Your task to perform on an android device: add a contact in the contacts app Image 0: 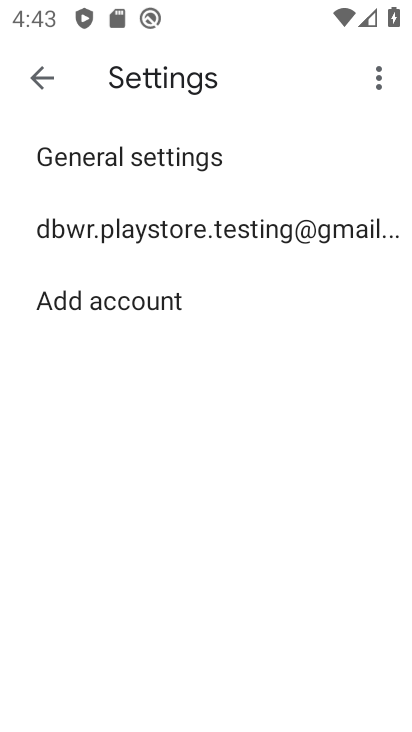
Step 0: press home button
Your task to perform on an android device: add a contact in the contacts app Image 1: 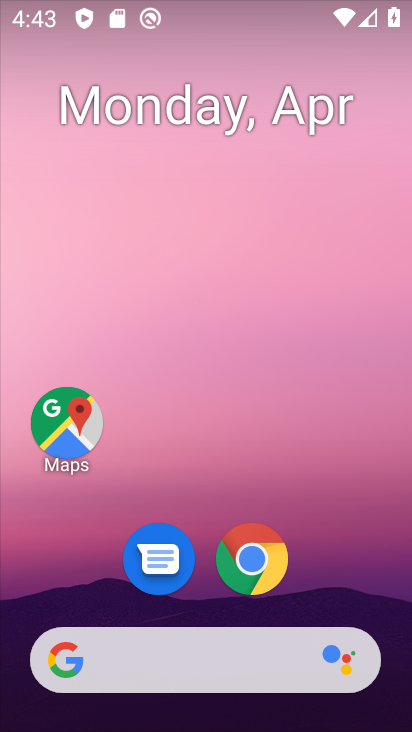
Step 1: drag from (357, 440) to (324, 76)
Your task to perform on an android device: add a contact in the contacts app Image 2: 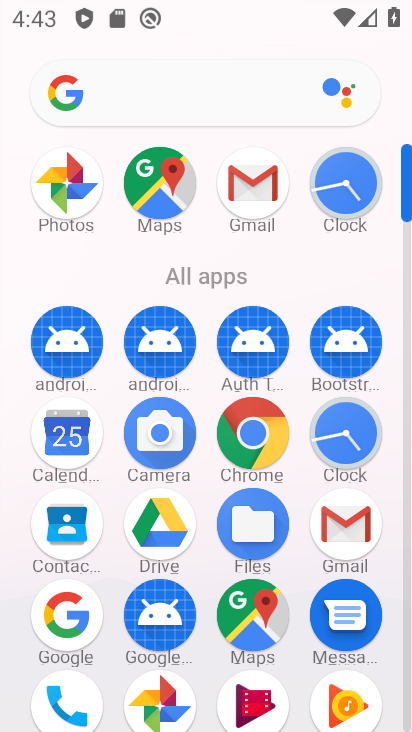
Step 2: click (80, 710)
Your task to perform on an android device: add a contact in the contacts app Image 3: 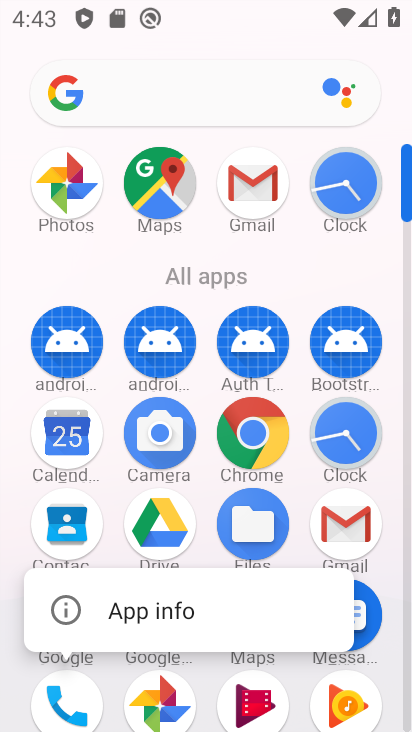
Step 3: click (73, 706)
Your task to perform on an android device: add a contact in the contacts app Image 4: 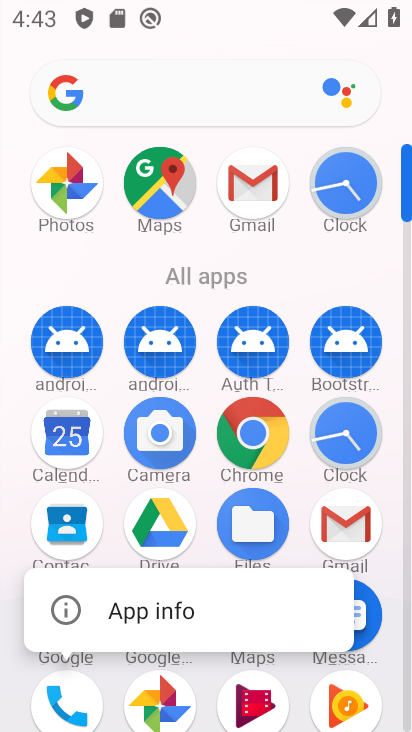
Step 4: click (73, 707)
Your task to perform on an android device: add a contact in the contacts app Image 5: 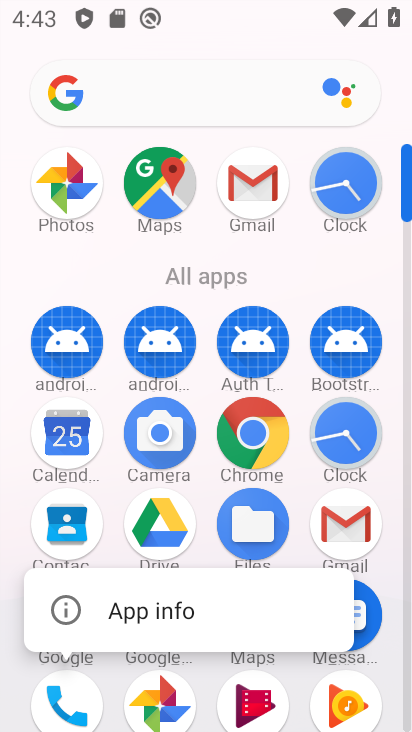
Step 5: click (70, 716)
Your task to perform on an android device: add a contact in the contacts app Image 6: 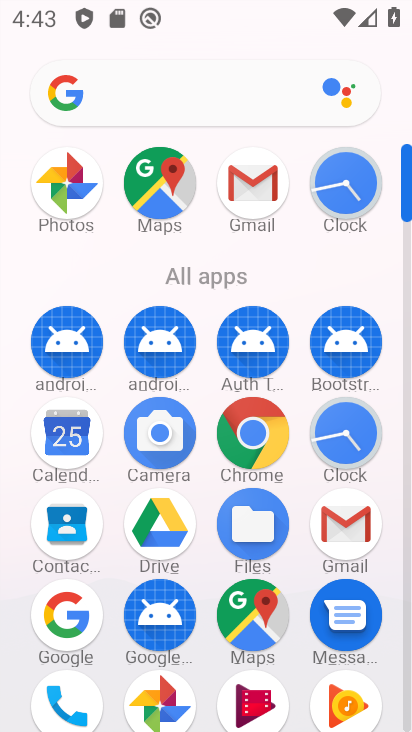
Step 6: click (67, 699)
Your task to perform on an android device: add a contact in the contacts app Image 7: 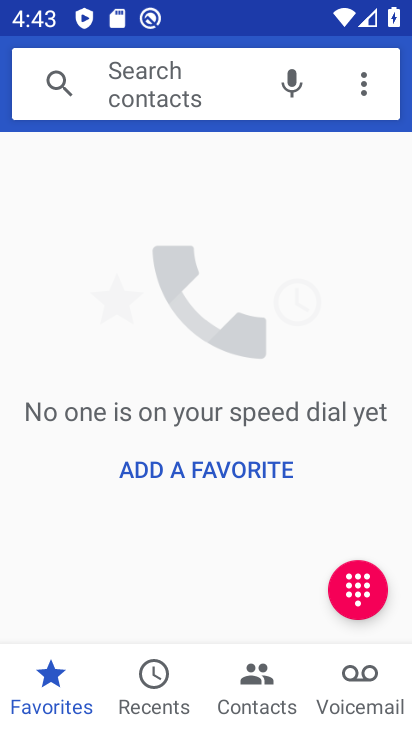
Step 7: click (241, 687)
Your task to perform on an android device: add a contact in the contacts app Image 8: 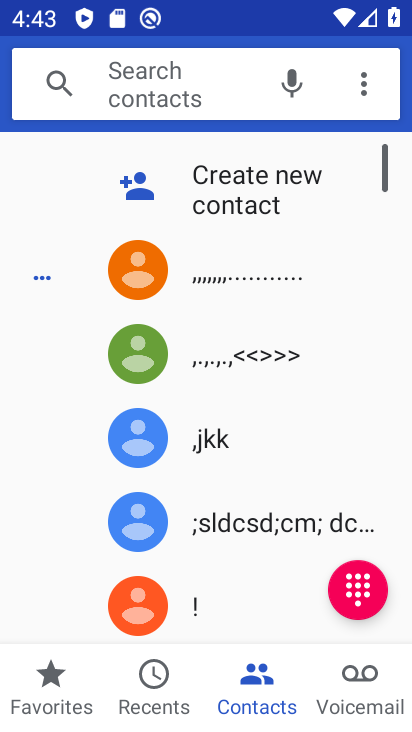
Step 8: click (260, 181)
Your task to perform on an android device: add a contact in the contacts app Image 9: 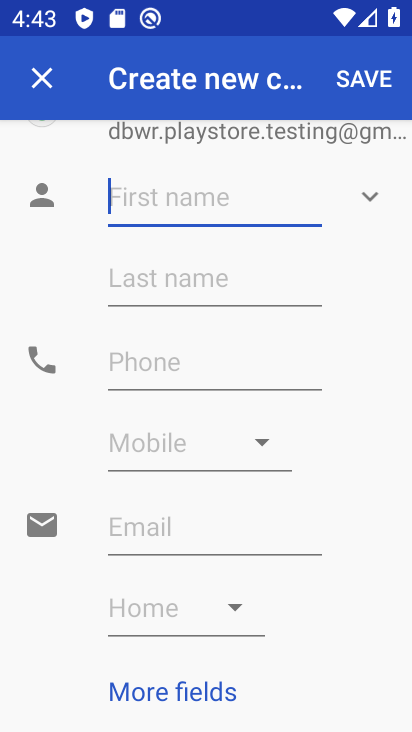
Step 9: type "seva"
Your task to perform on an android device: add a contact in the contacts app Image 10: 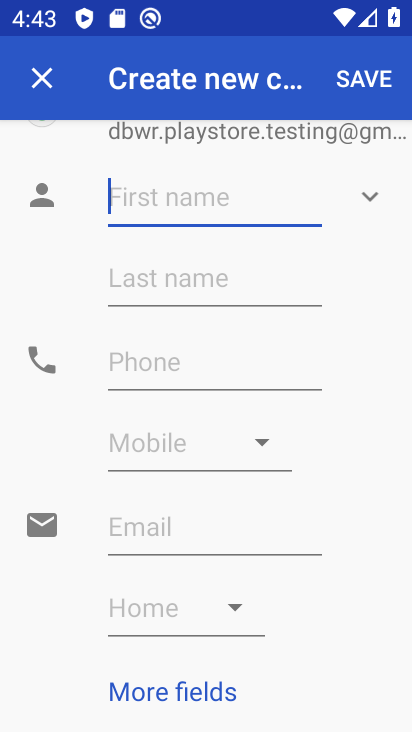
Step 10: click (159, 361)
Your task to perform on an android device: add a contact in the contacts app Image 11: 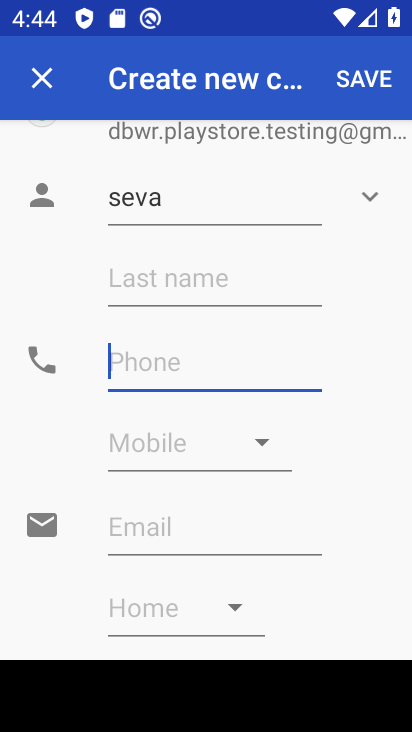
Step 11: type "5678925678"
Your task to perform on an android device: add a contact in the contacts app Image 12: 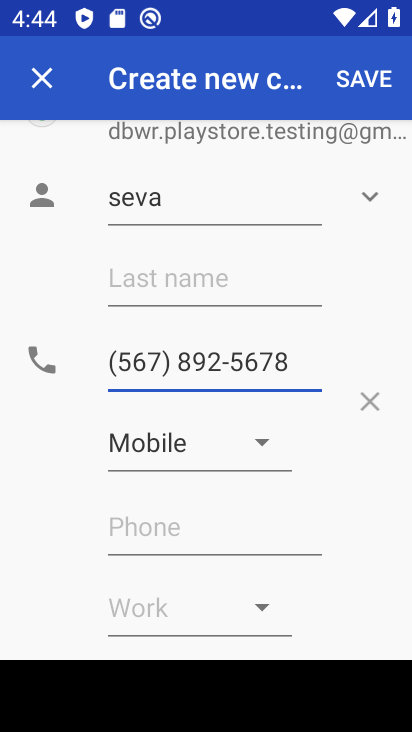
Step 12: click (370, 82)
Your task to perform on an android device: add a contact in the contacts app Image 13: 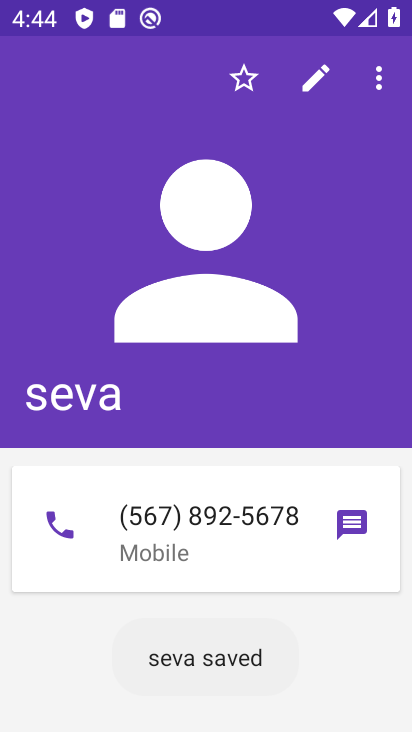
Step 13: task complete